Your task to perform on an android device: Go to ESPN.com Image 0: 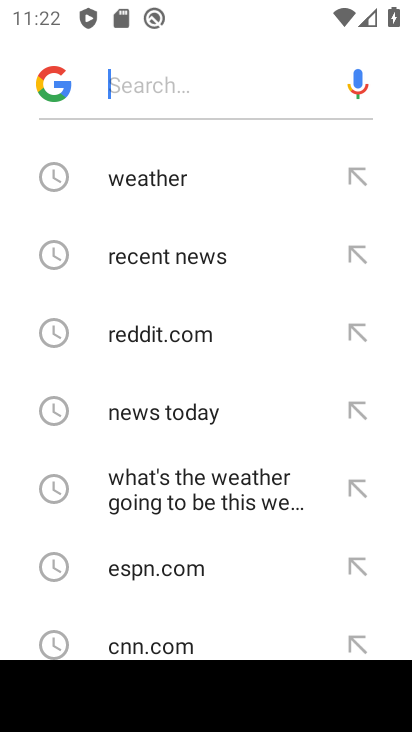
Step 0: press home button
Your task to perform on an android device: Go to ESPN.com Image 1: 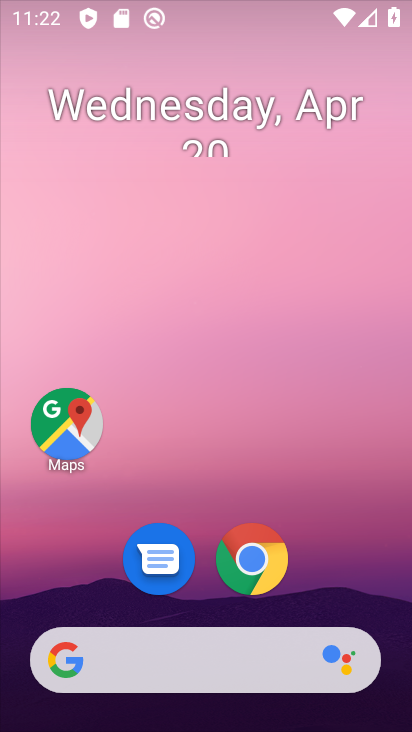
Step 1: click (247, 567)
Your task to perform on an android device: Go to ESPN.com Image 2: 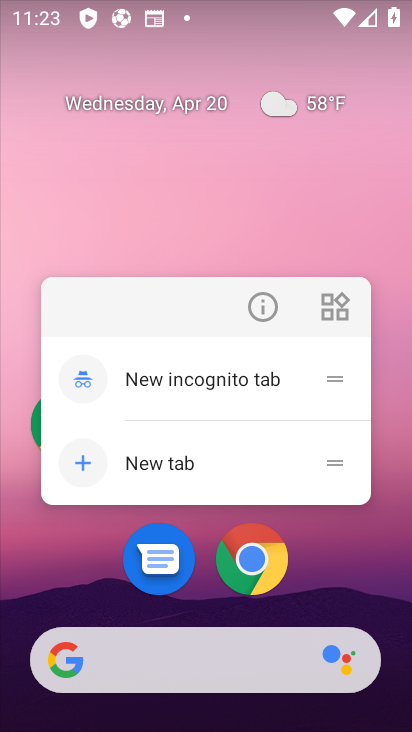
Step 2: click (257, 572)
Your task to perform on an android device: Go to ESPN.com Image 3: 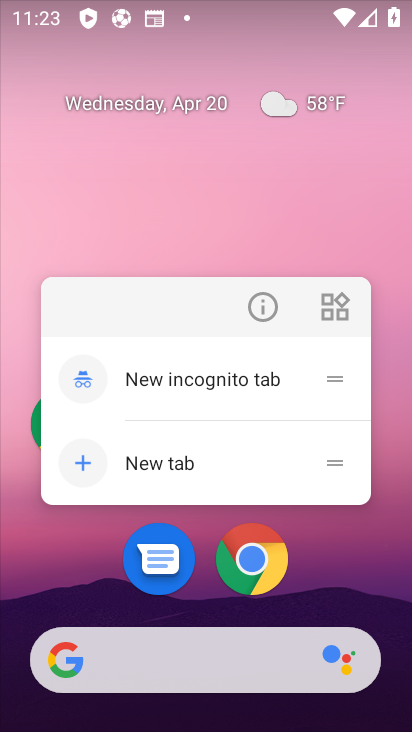
Step 3: click (244, 573)
Your task to perform on an android device: Go to ESPN.com Image 4: 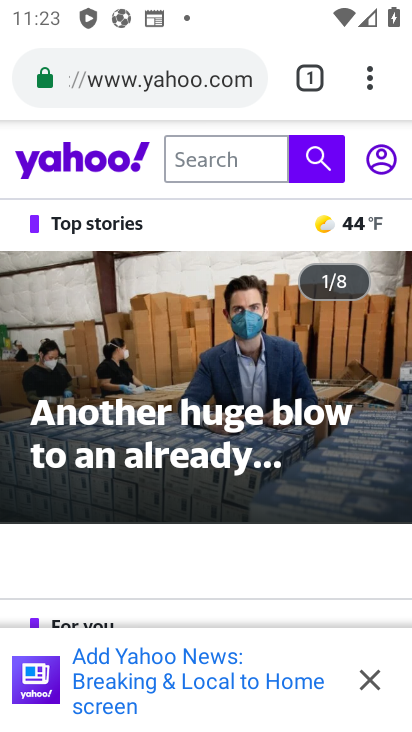
Step 4: click (314, 77)
Your task to perform on an android device: Go to ESPN.com Image 5: 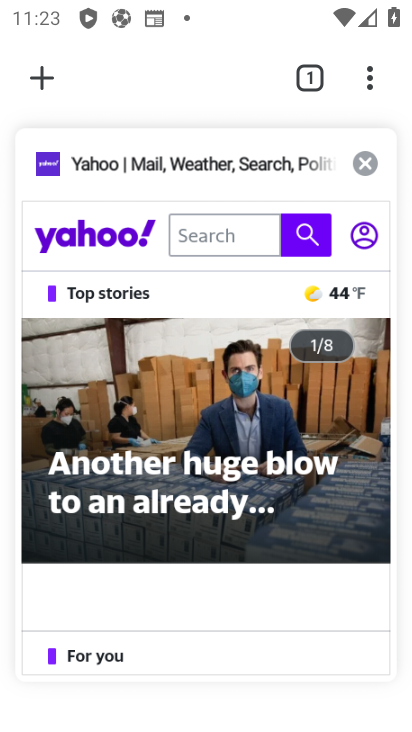
Step 5: click (25, 70)
Your task to perform on an android device: Go to ESPN.com Image 6: 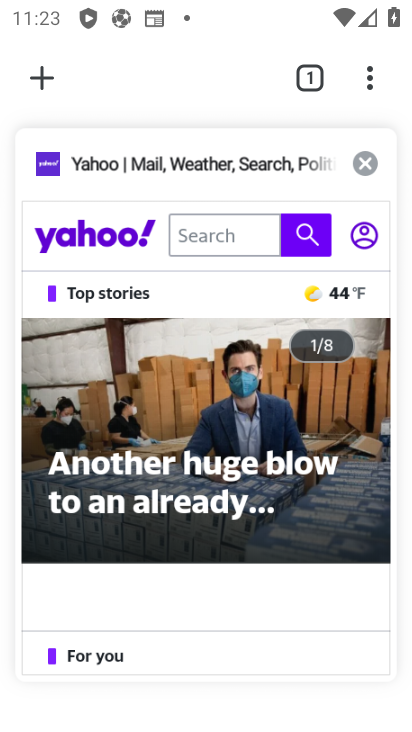
Step 6: click (40, 78)
Your task to perform on an android device: Go to ESPN.com Image 7: 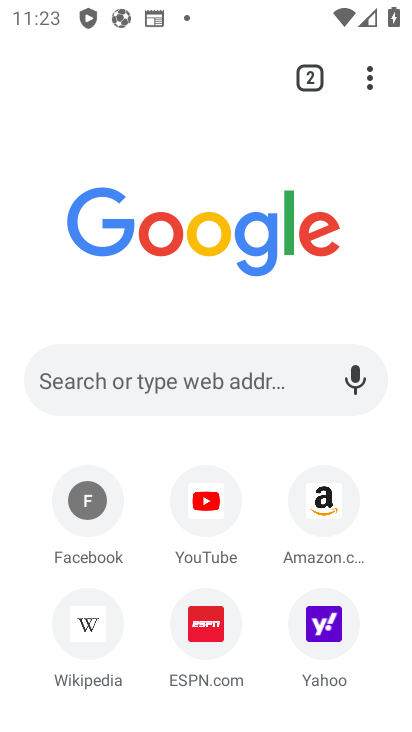
Step 7: click (214, 622)
Your task to perform on an android device: Go to ESPN.com Image 8: 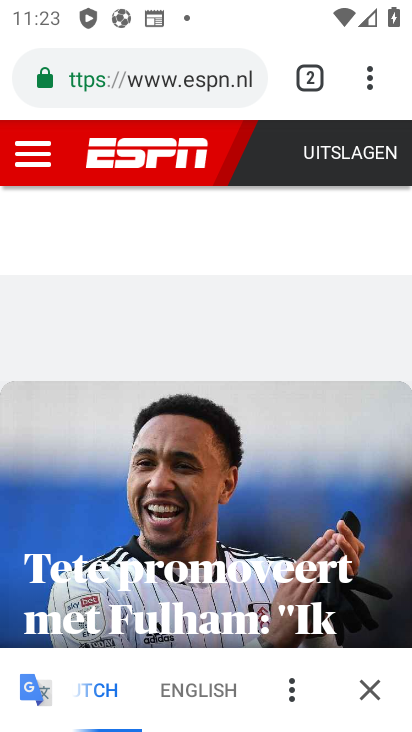
Step 8: task complete